Your task to perform on an android device: turn on the 12-hour format for clock Image 0: 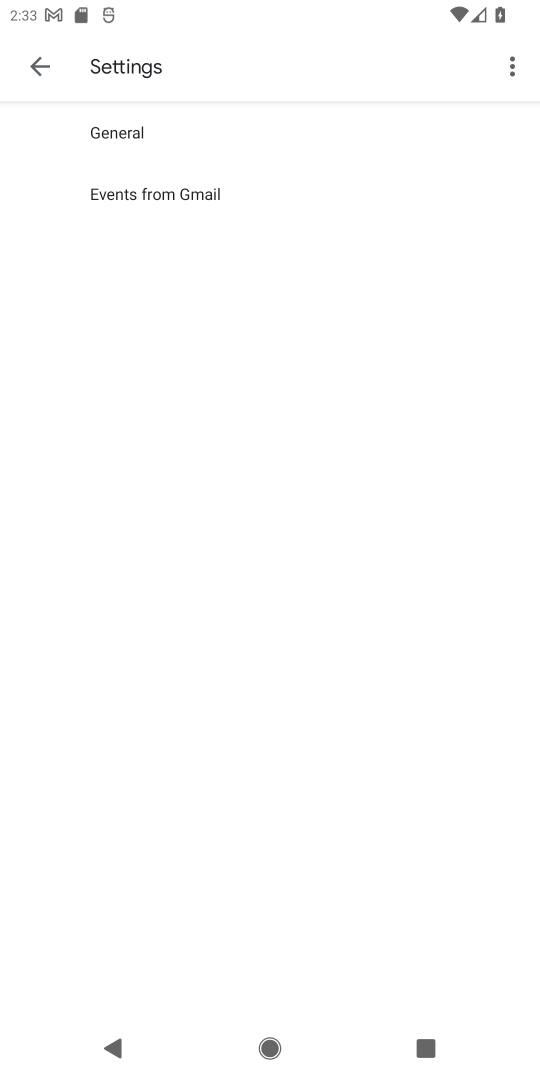
Step 0: press home button
Your task to perform on an android device: turn on the 12-hour format for clock Image 1: 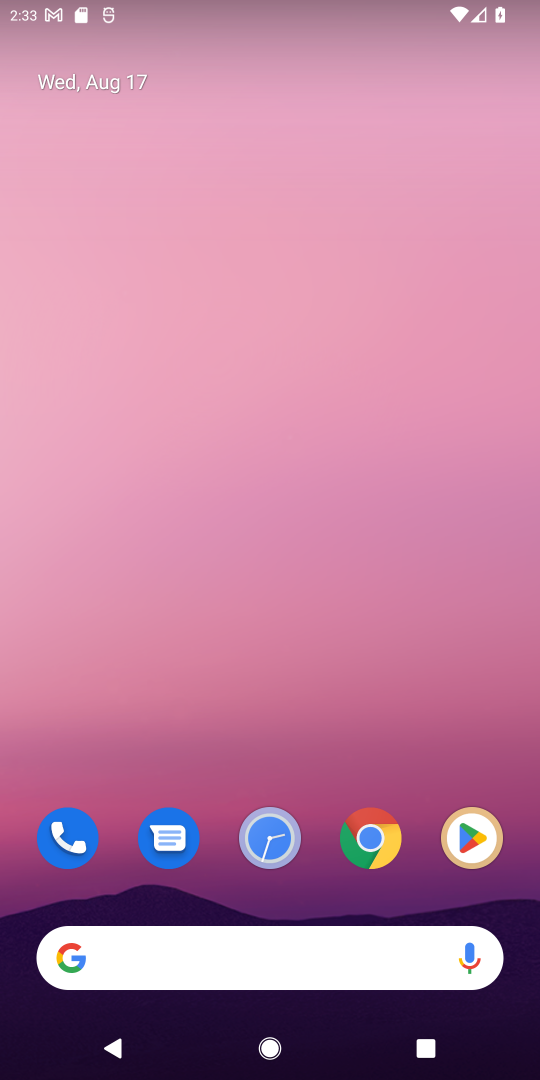
Step 1: drag from (246, 939) to (213, 333)
Your task to perform on an android device: turn on the 12-hour format for clock Image 2: 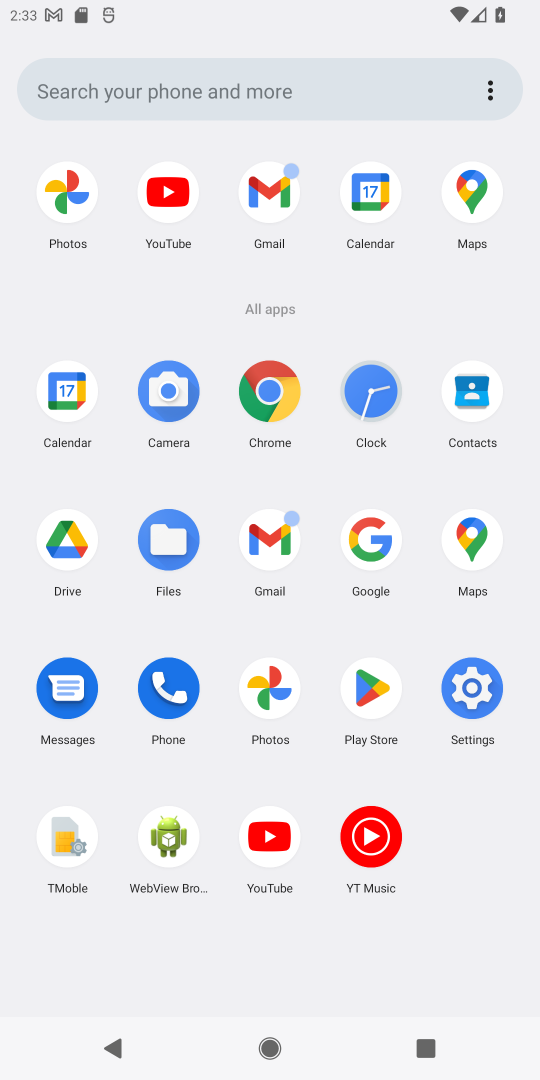
Step 2: click (355, 389)
Your task to perform on an android device: turn on the 12-hour format for clock Image 3: 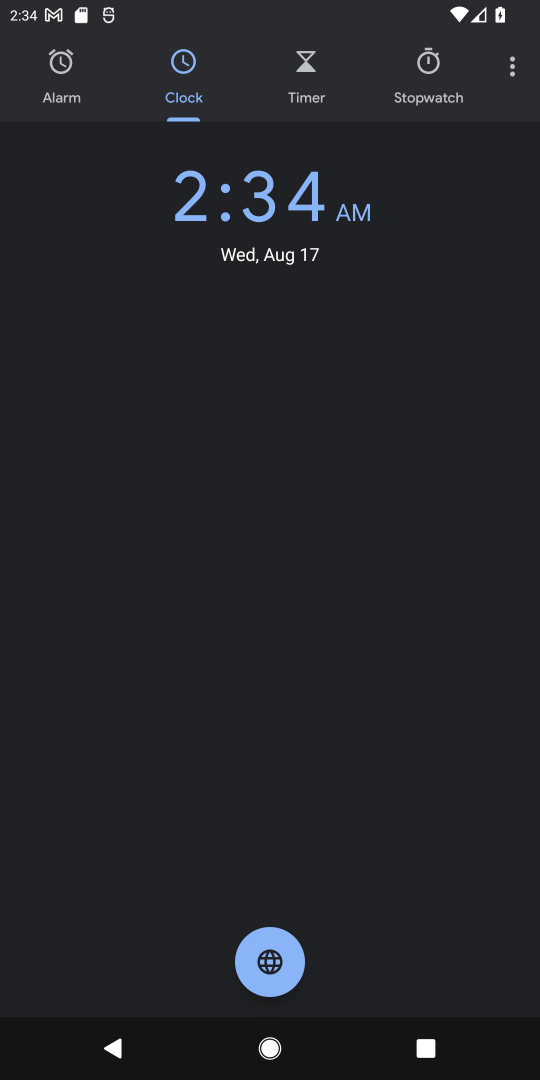
Step 3: click (513, 71)
Your task to perform on an android device: turn on the 12-hour format for clock Image 4: 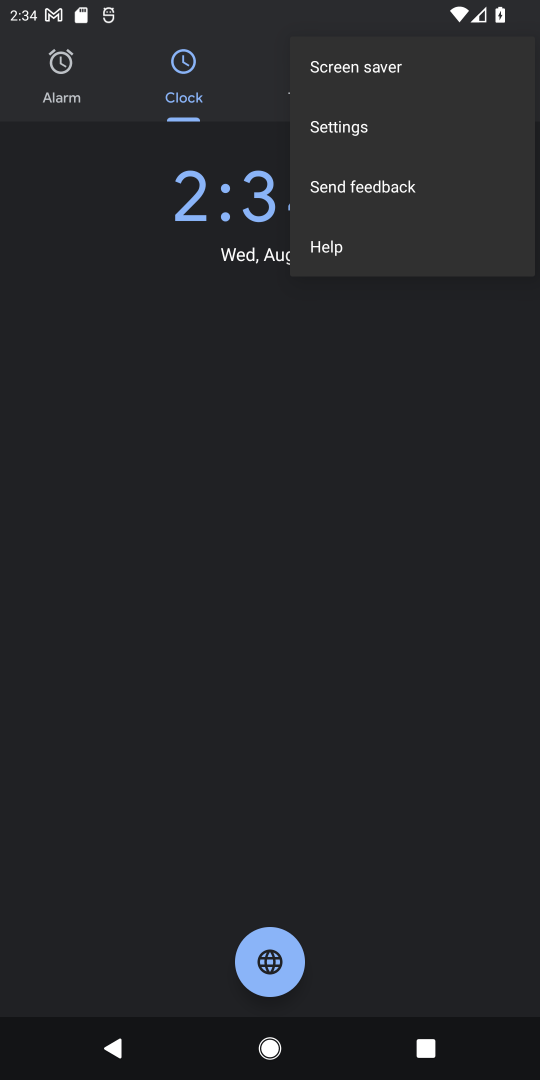
Step 4: click (358, 134)
Your task to perform on an android device: turn on the 12-hour format for clock Image 5: 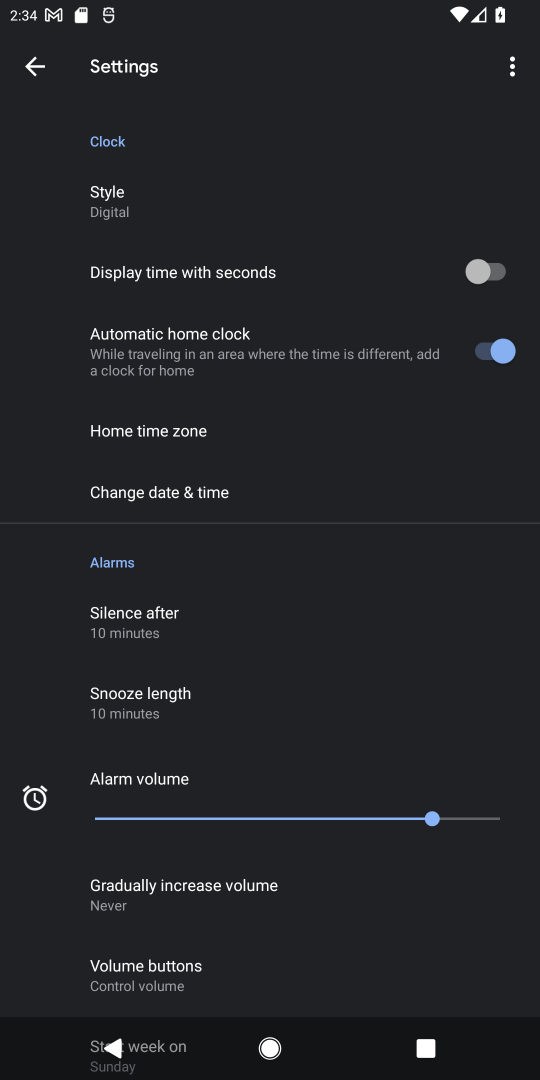
Step 5: task complete